Your task to perform on an android device: turn on wifi Image 0: 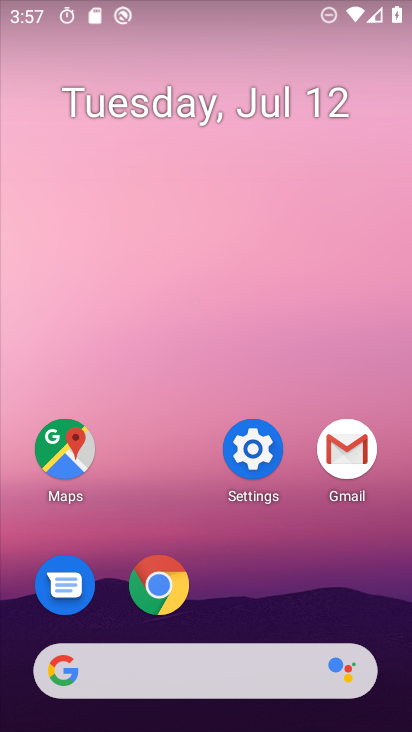
Step 0: click (268, 450)
Your task to perform on an android device: turn on wifi Image 1: 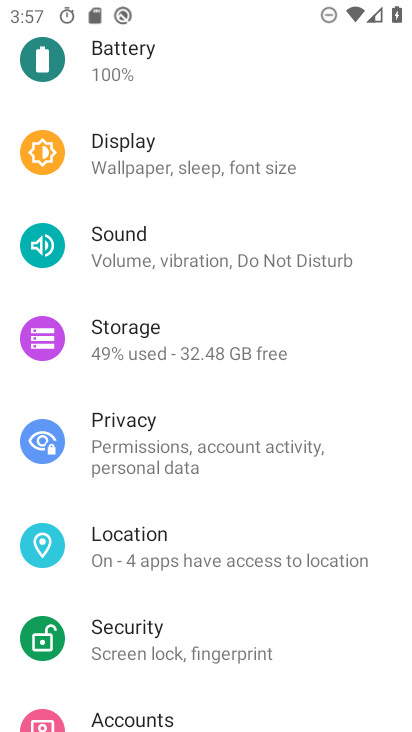
Step 1: drag from (355, 110) to (361, 579)
Your task to perform on an android device: turn on wifi Image 2: 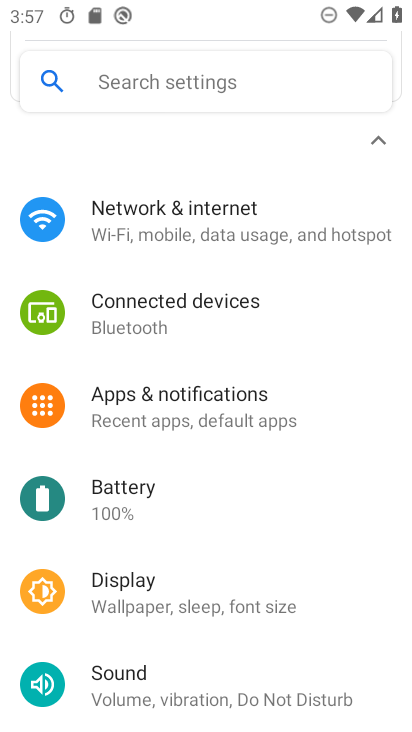
Step 2: click (201, 229)
Your task to perform on an android device: turn on wifi Image 3: 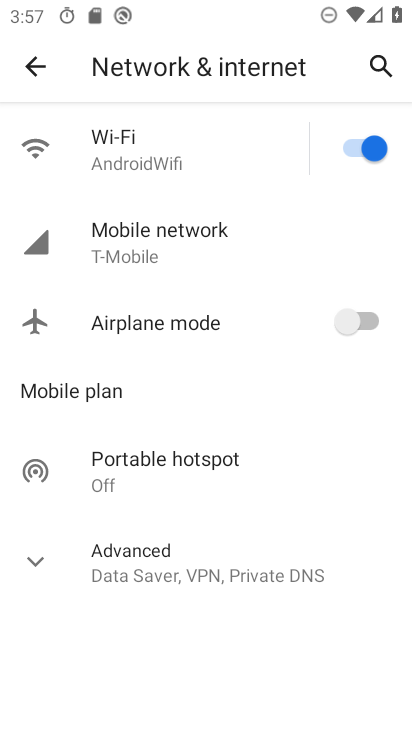
Step 3: task complete